Your task to perform on an android device: see sites visited before in the chrome app Image 0: 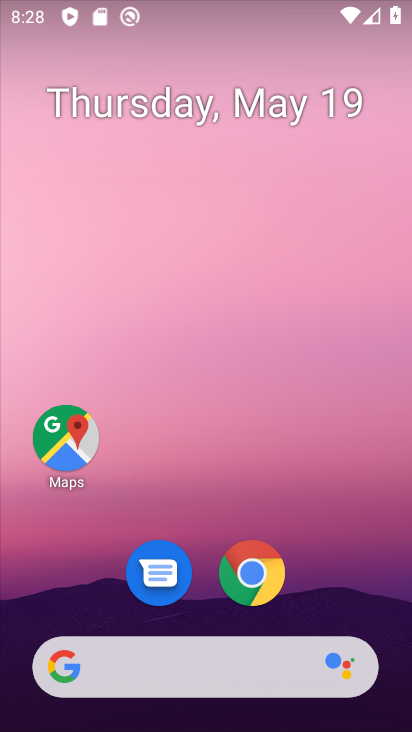
Step 0: click (249, 575)
Your task to perform on an android device: see sites visited before in the chrome app Image 1: 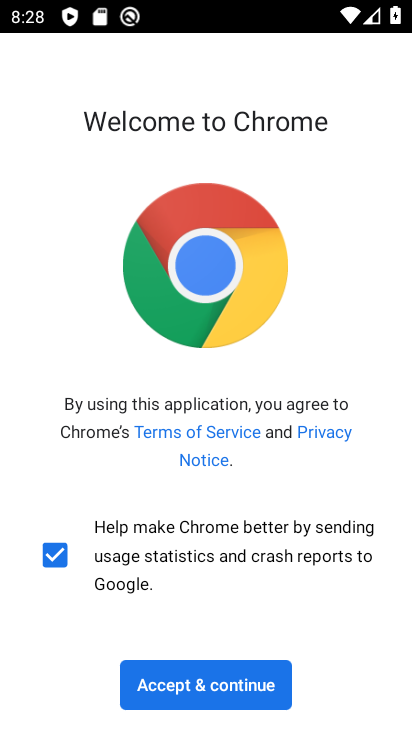
Step 1: click (191, 697)
Your task to perform on an android device: see sites visited before in the chrome app Image 2: 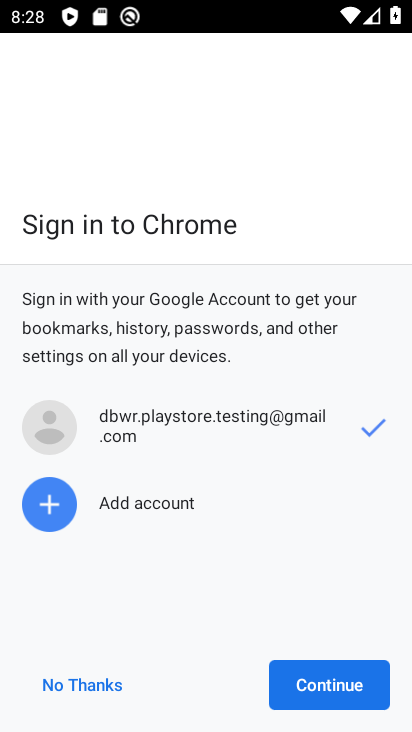
Step 2: click (50, 695)
Your task to perform on an android device: see sites visited before in the chrome app Image 3: 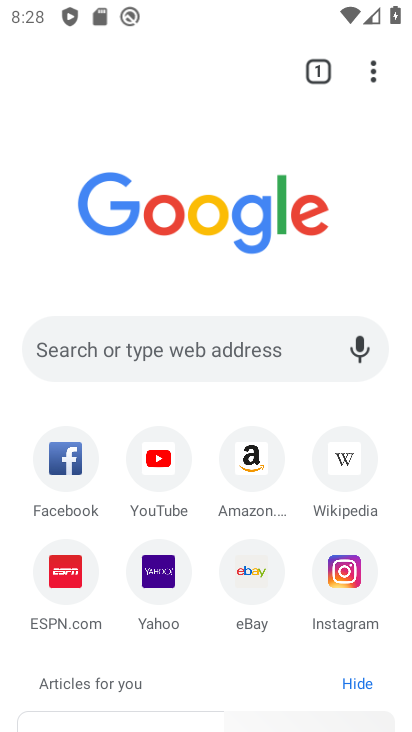
Step 3: task complete